Your task to perform on an android device: Add "usb-c to usb-b" to the cart on ebay.com Image 0: 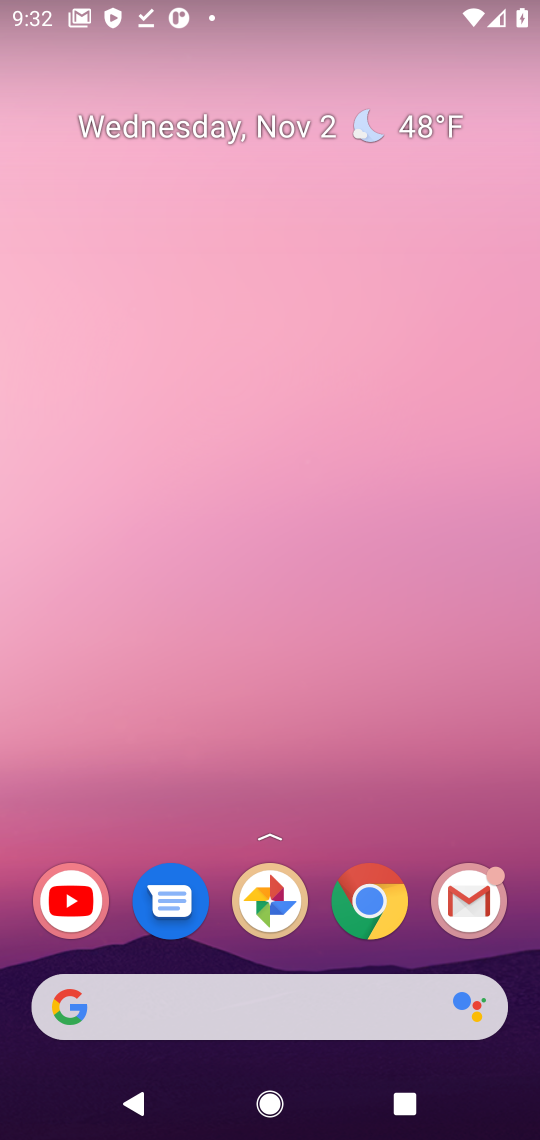
Step 0: click (381, 902)
Your task to perform on an android device: Add "usb-c to usb-b" to the cart on ebay.com Image 1: 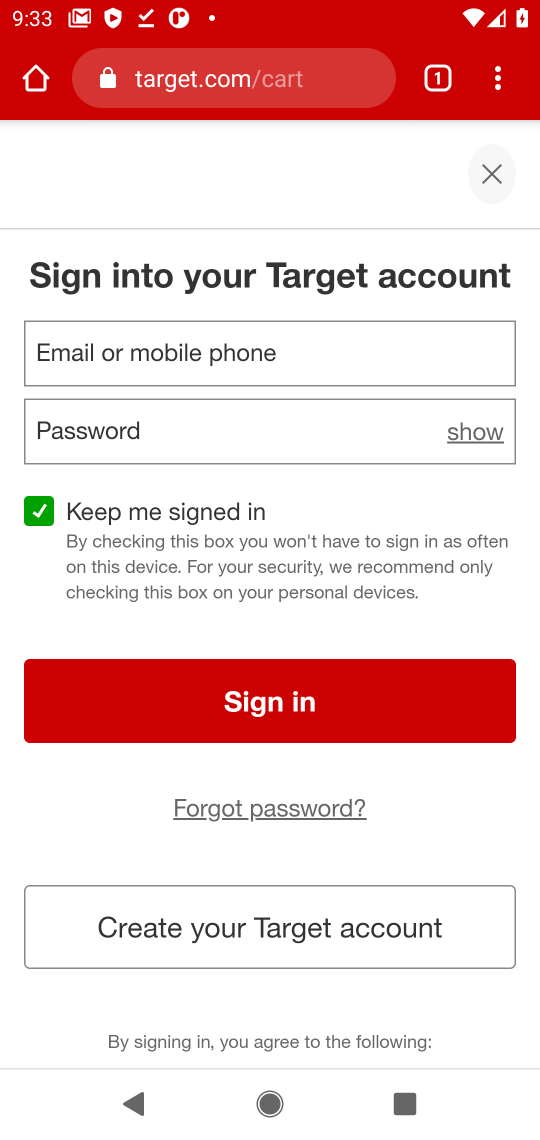
Step 1: click (297, 97)
Your task to perform on an android device: Add "usb-c to usb-b" to the cart on ebay.com Image 2: 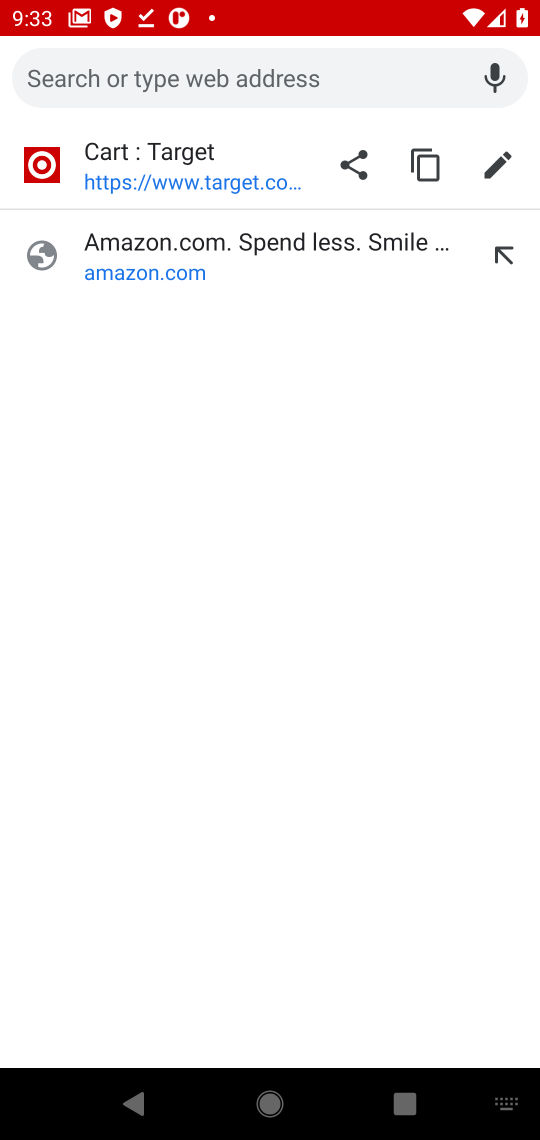
Step 2: type "ebay"
Your task to perform on an android device: Add "usb-c to usb-b" to the cart on ebay.com Image 3: 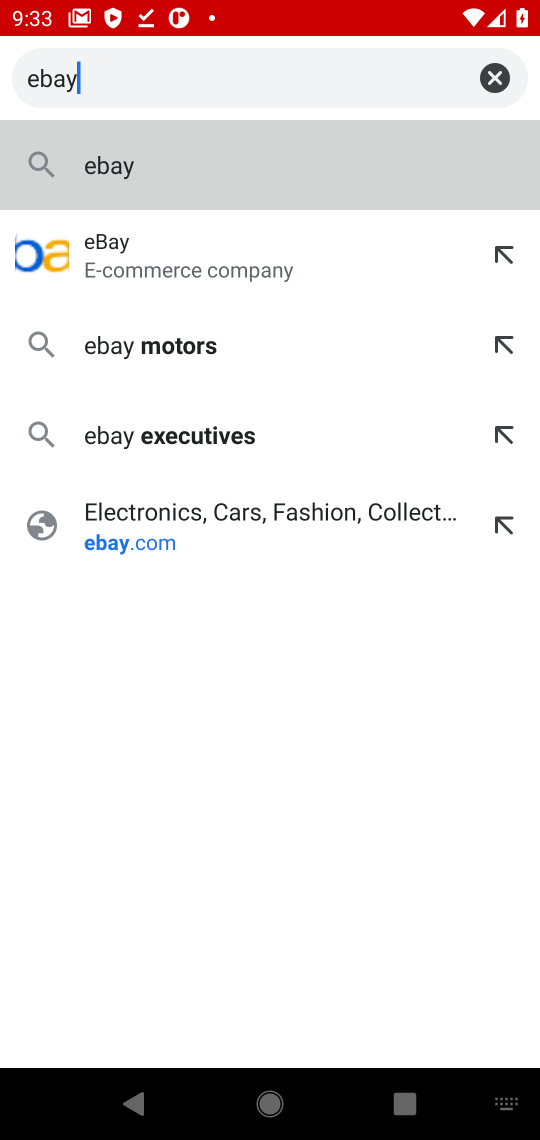
Step 3: click (92, 166)
Your task to perform on an android device: Add "usb-c to usb-b" to the cart on ebay.com Image 4: 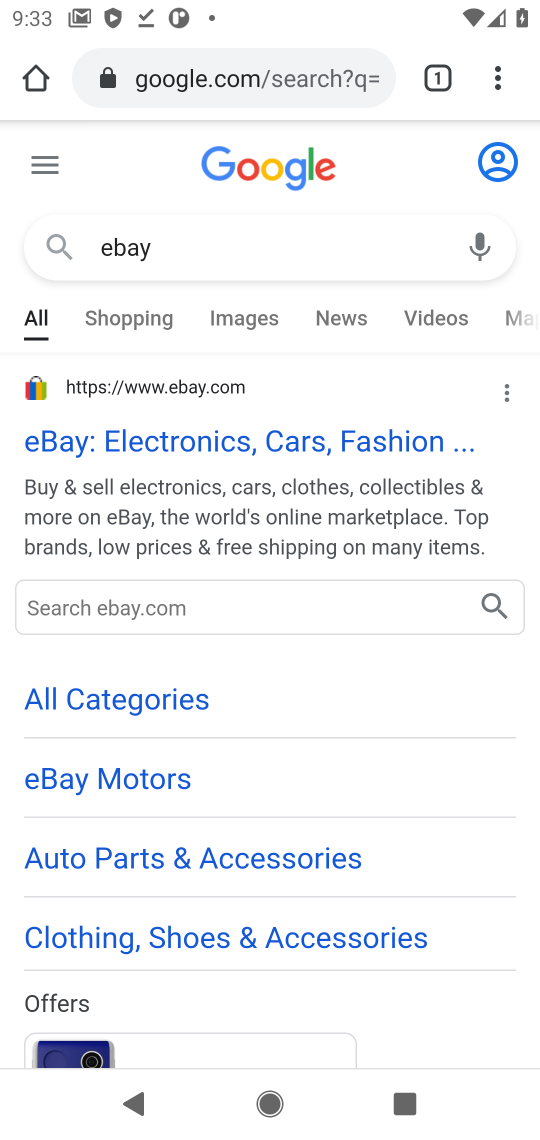
Step 4: click (260, 447)
Your task to perform on an android device: Add "usb-c to usb-b" to the cart on ebay.com Image 5: 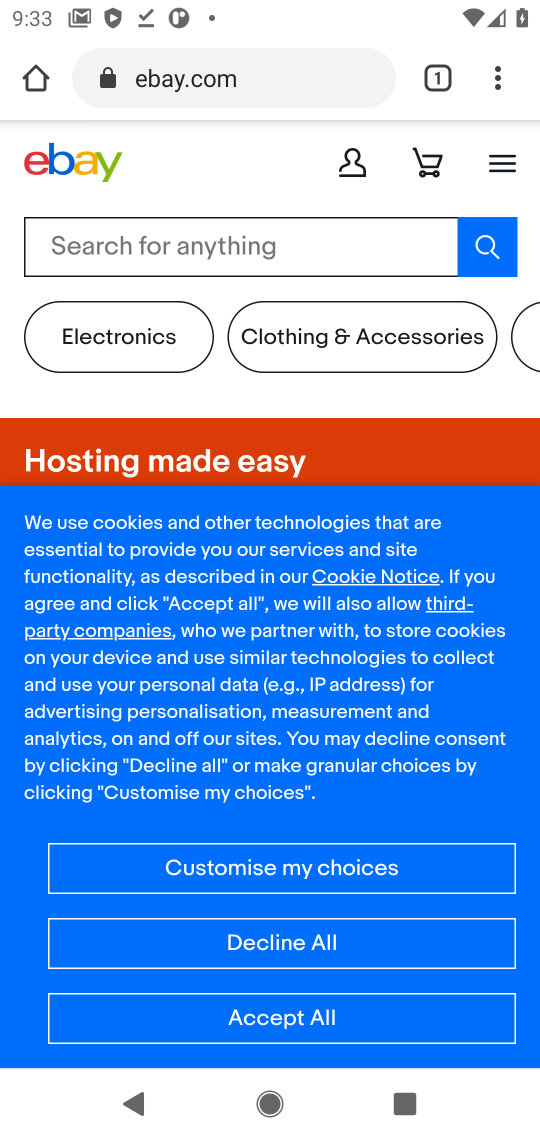
Step 5: click (262, 1018)
Your task to perform on an android device: Add "usb-c to usb-b" to the cart on ebay.com Image 6: 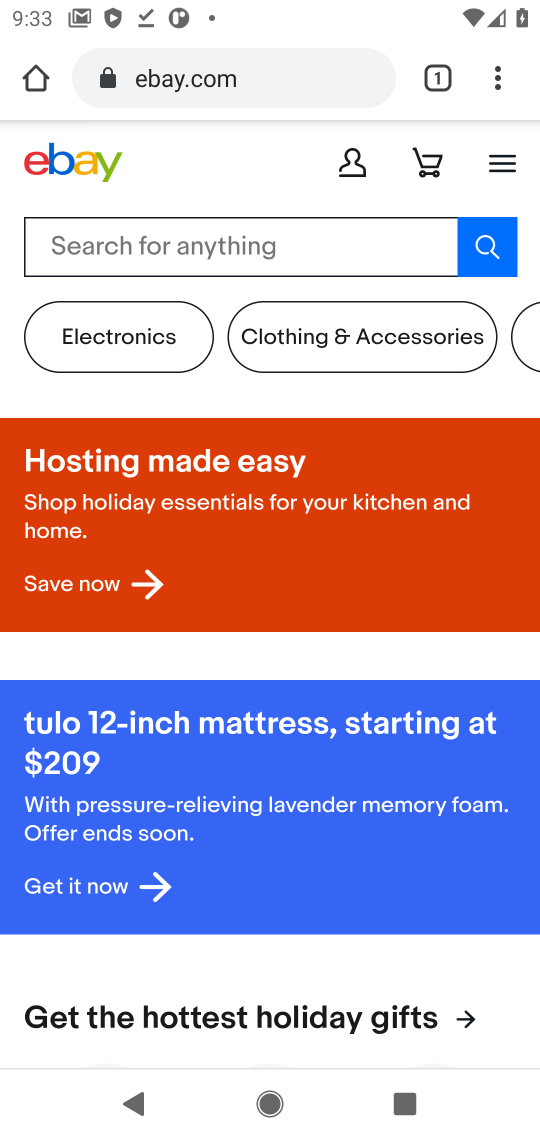
Step 6: click (286, 230)
Your task to perform on an android device: Add "usb-c to usb-b" to the cart on ebay.com Image 7: 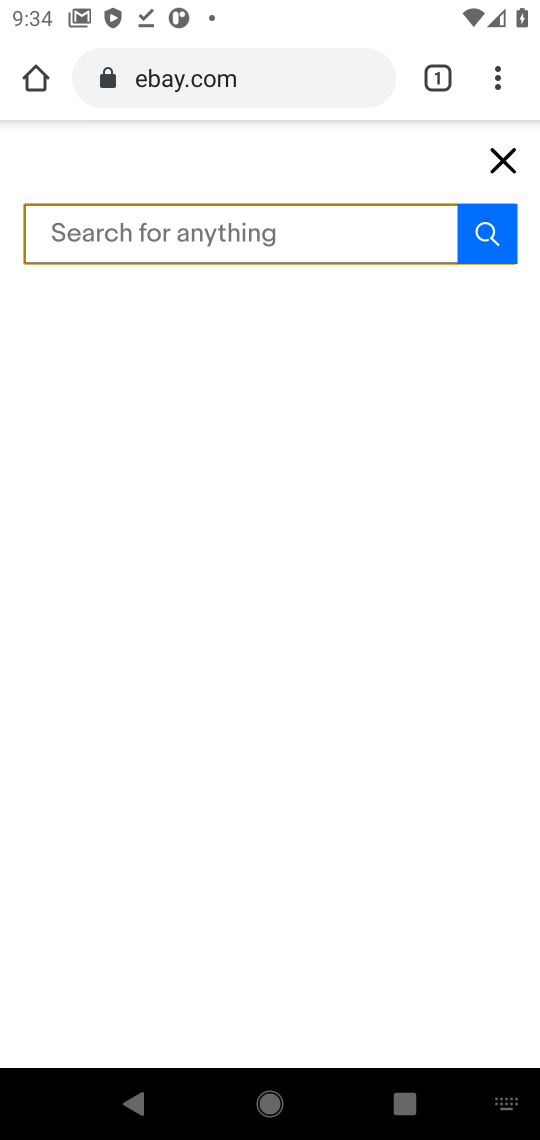
Step 7: type "usb-c to usb-b"
Your task to perform on an android device: Add "usb-c to usb-b" to the cart on ebay.com Image 8: 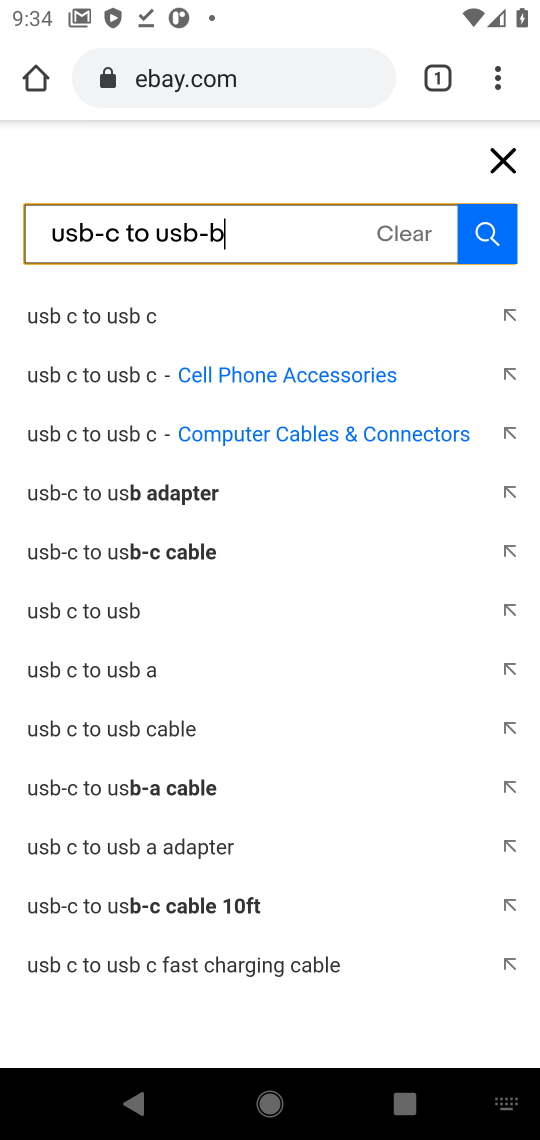
Step 8: click (76, 313)
Your task to perform on an android device: Add "usb-c to usb-b" to the cart on ebay.com Image 9: 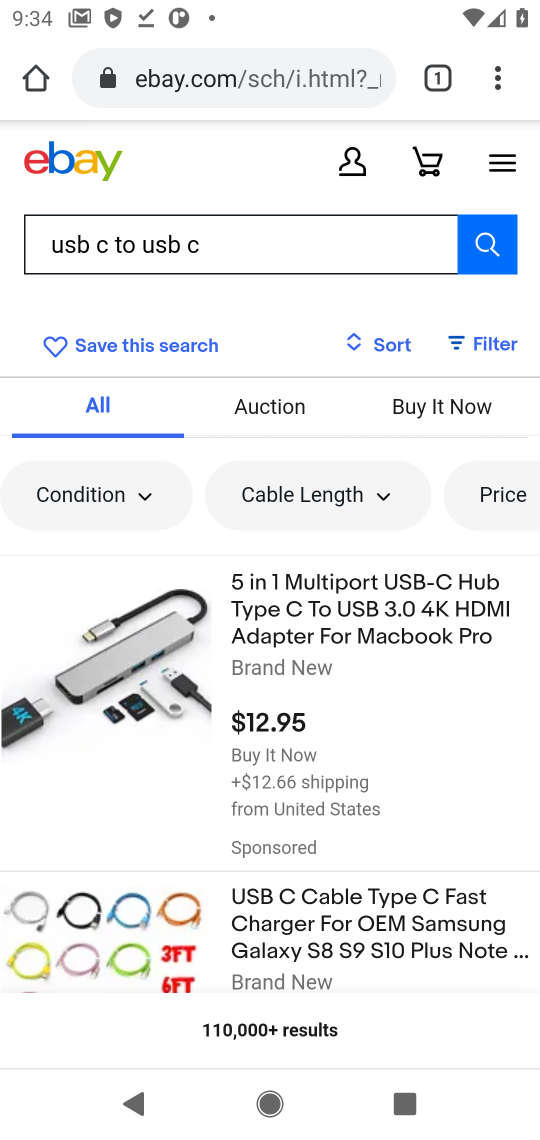
Step 9: task complete